Your task to perform on an android device: toggle show notifications on the lock screen Image 0: 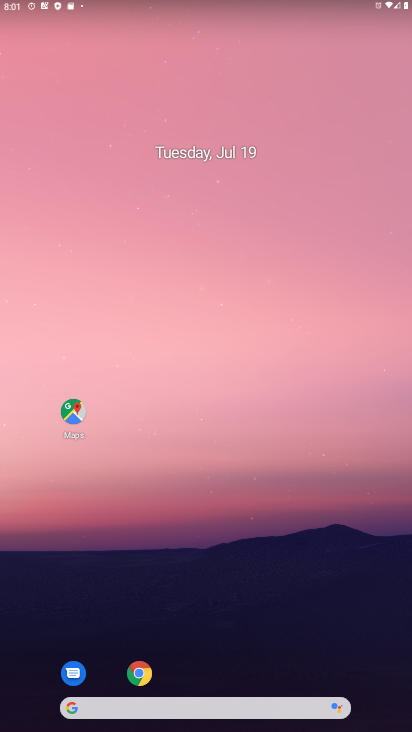
Step 0: drag from (269, 544) to (266, 39)
Your task to perform on an android device: toggle show notifications on the lock screen Image 1: 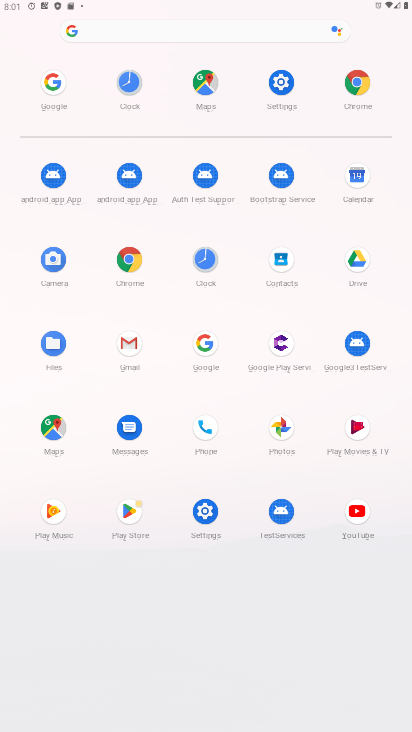
Step 1: click (285, 83)
Your task to perform on an android device: toggle show notifications on the lock screen Image 2: 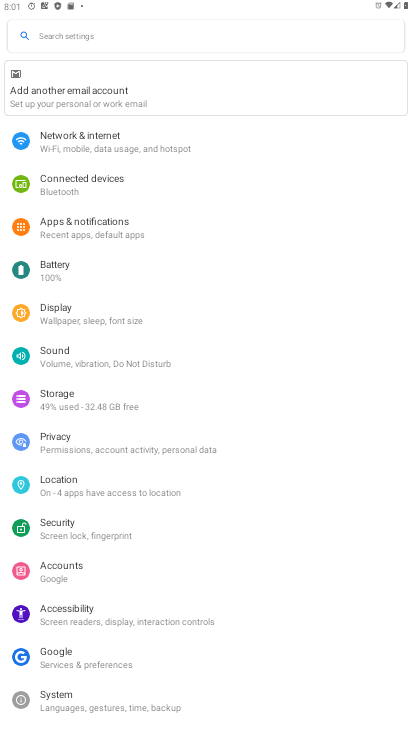
Step 2: click (103, 218)
Your task to perform on an android device: toggle show notifications on the lock screen Image 3: 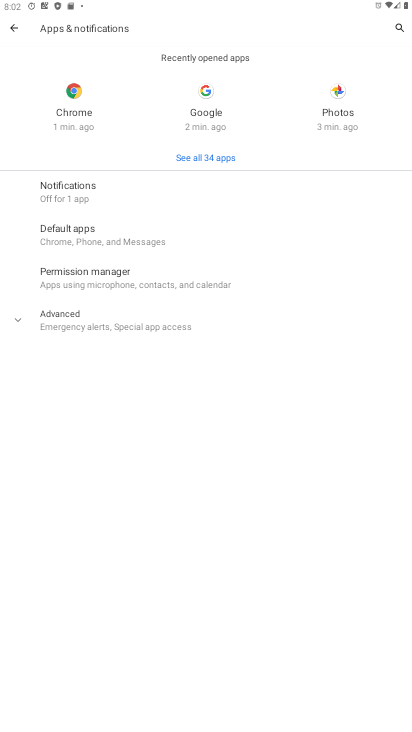
Step 3: click (83, 189)
Your task to perform on an android device: toggle show notifications on the lock screen Image 4: 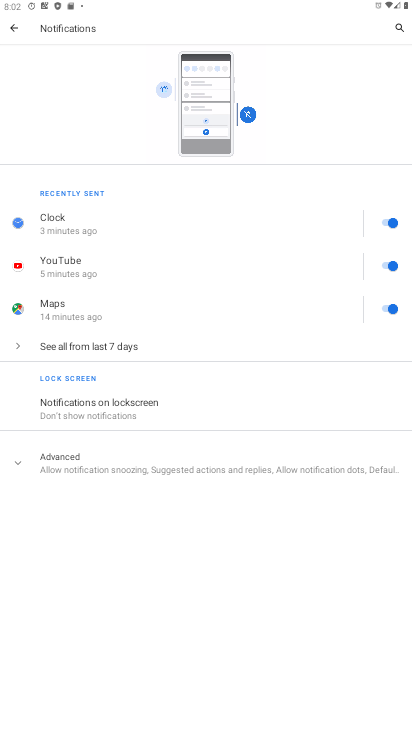
Step 4: click (77, 409)
Your task to perform on an android device: toggle show notifications on the lock screen Image 5: 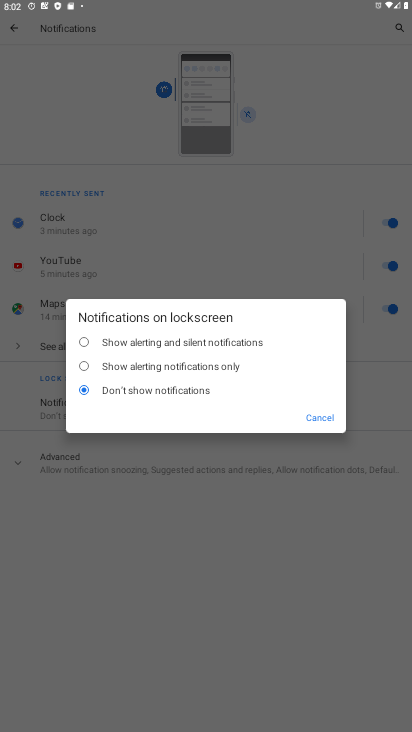
Step 5: click (128, 364)
Your task to perform on an android device: toggle show notifications on the lock screen Image 6: 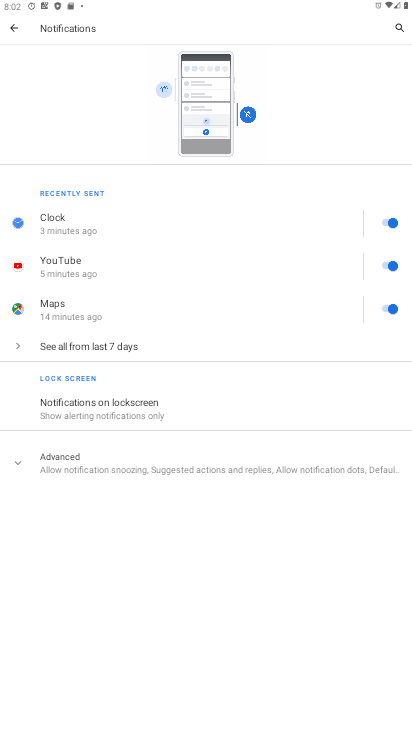
Step 6: task complete